Your task to perform on an android device: toggle show notifications on the lock screen Image 0: 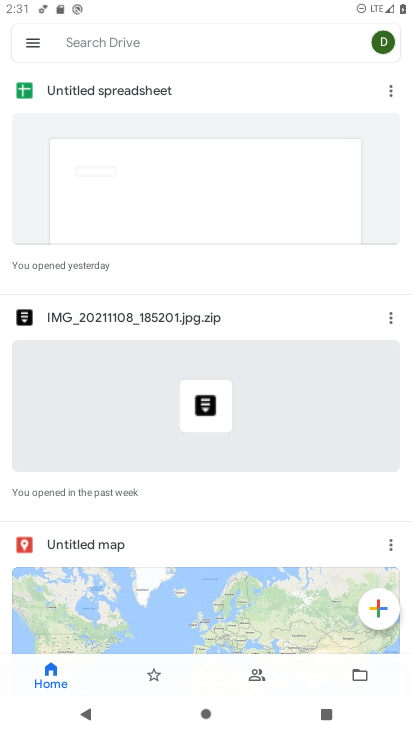
Step 0: press home button
Your task to perform on an android device: toggle show notifications on the lock screen Image 1: 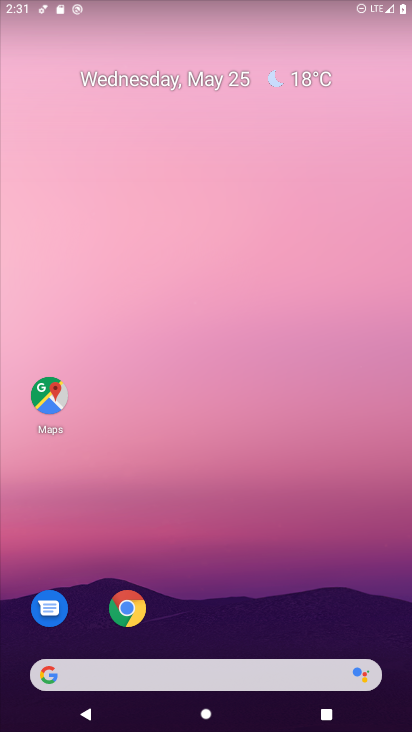
Step 1: drag from (384, 633) to (352, 105)
Your task to perform on an android device: toggle show notifications on the lock screen Image 2: 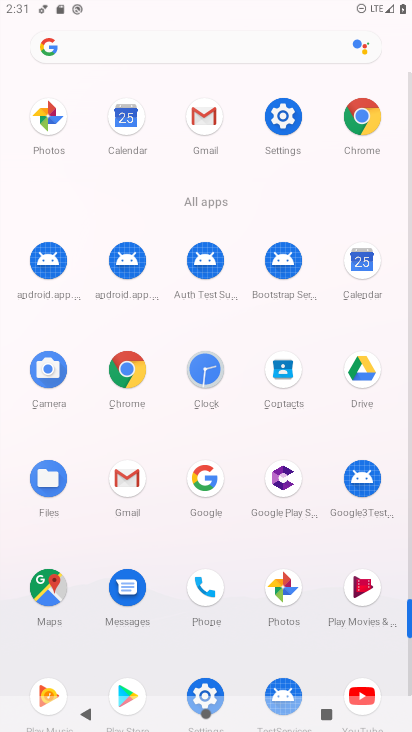
Step 2: click (408, 689)
Your task to perform on an android device: toggle show notifications on the lock screen Image 3: 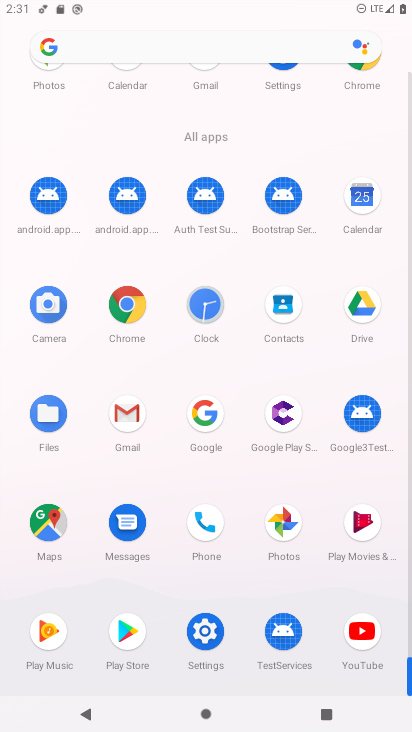
Step 3: click (206, 630)
Your task to perform on an android device: toggle show notifications on the lock screen Image 4: 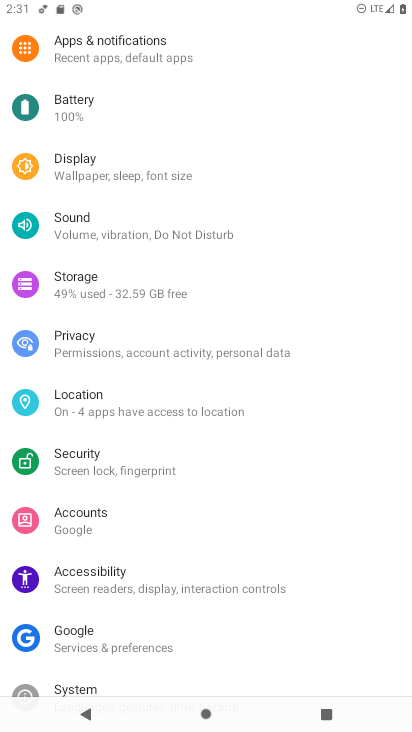
Step 4: drag from (199, 140) to (224, 422)
Your task to perform on an android device: toggle show notifications on the lock screen Image 5: 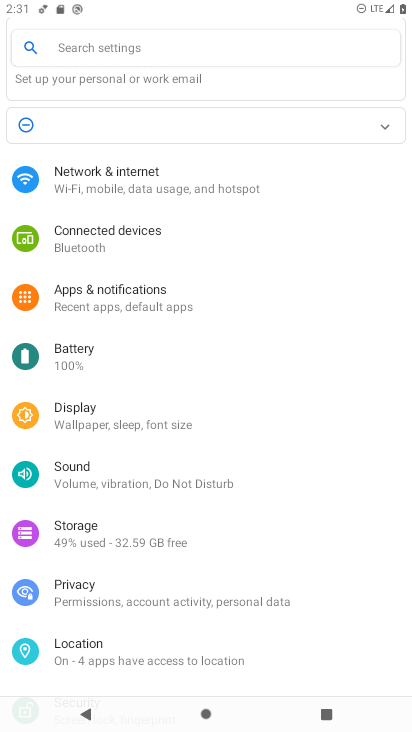
Step 5: click (119, 290)
Your task to perform on an android device: toggle show notifications on the lock screen Image 6: 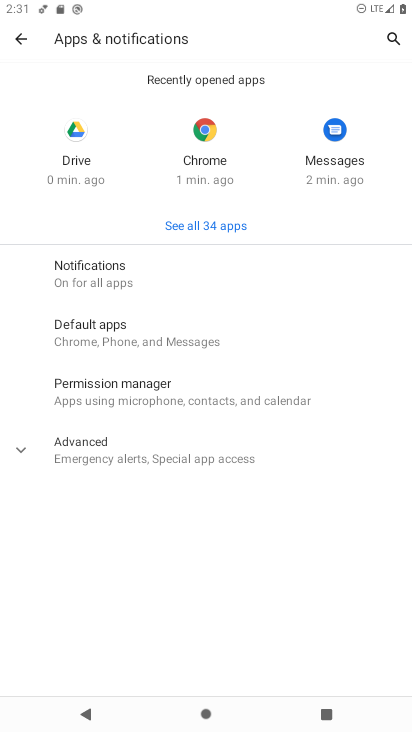
Step 6: click (92, 274)
Your task to perform on an android device: toggle show notifications on the lock screen Image 7: 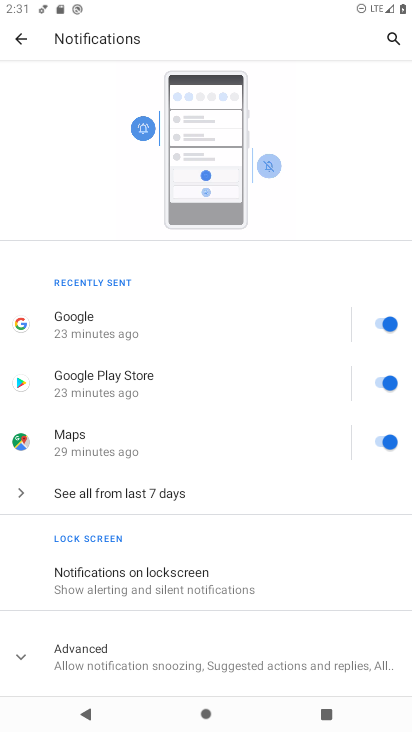
Step 7: drag from (275, 629) to (232, 322)
Your task to perform on an android device: toggle show notifications on the lock screen Image 8: 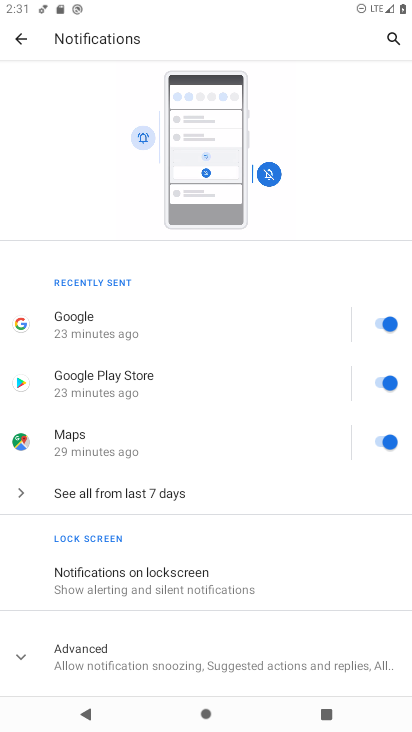
Step 8: click (152, 569)
Your task to perform on an android device: toggle show notifications on the lock screen Image 9: 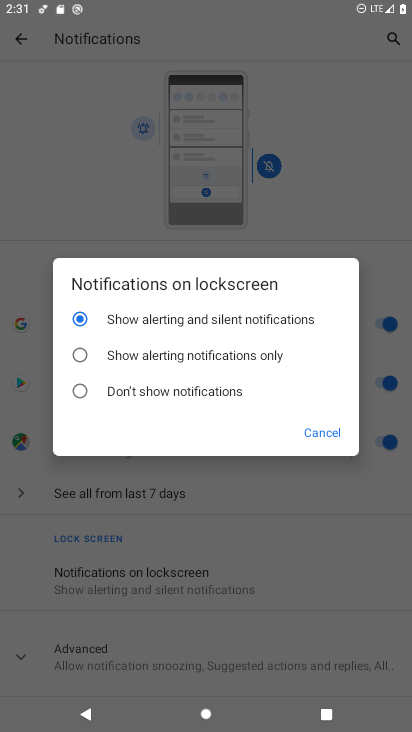
Step 9: click (79, 353)
Your task to perform on an android device: toggle show notifications on the lock screen Image 10: 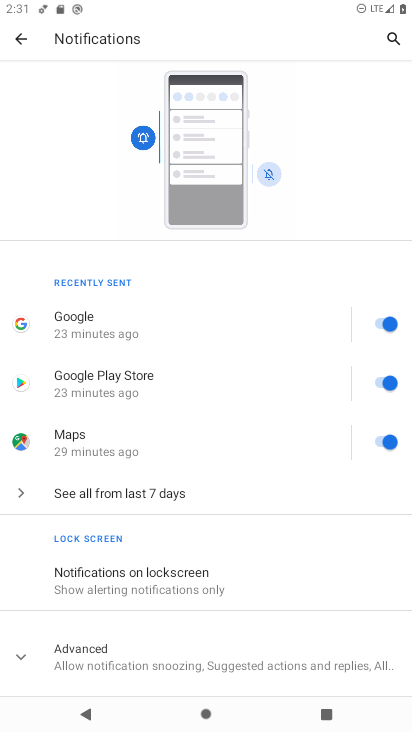
Step 10: task complete